Your task to perform on an android device: Go to Wikipedia Image 0: 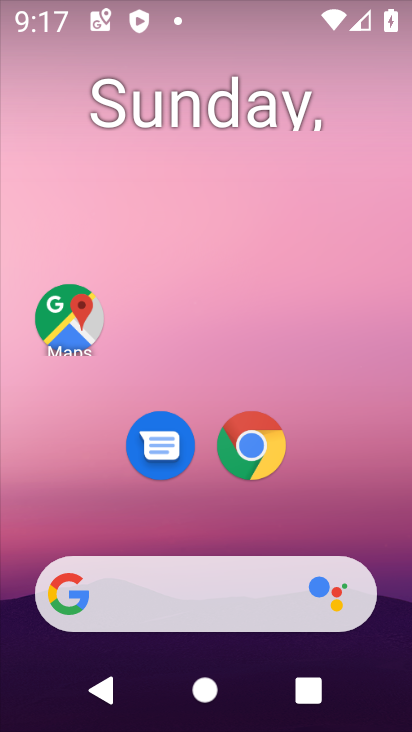
Step 0: click (243, 432)
Your task to perform on an android device: Go to Wikipedia Image 1: 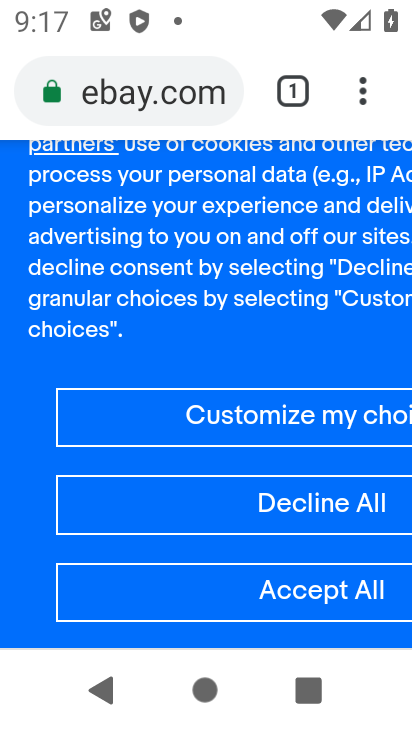
Step 1: click (142, 85)
Your task to perform on an android device: Go to Wikipedia Image 2: 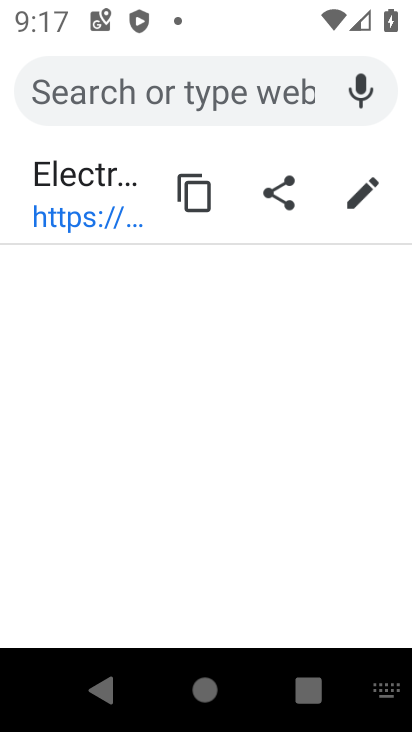
Step 2: type "wikipedia"
Your task to perform on an android device: Go to Wikipedia Image 3: 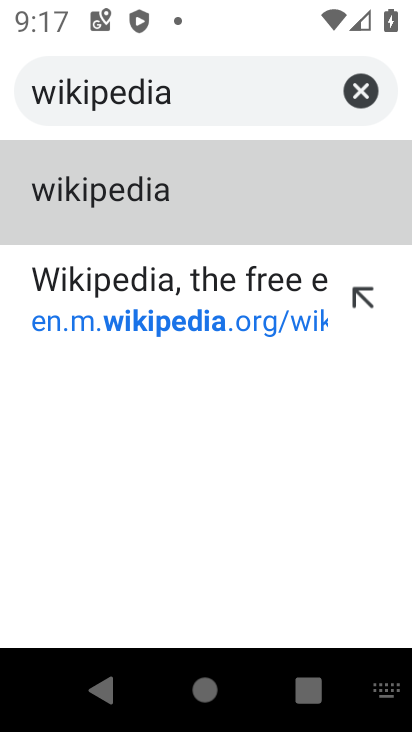
Step 3: click (123, 178)
Your task to perform on an android device: Go to Wikipedia Image 4: 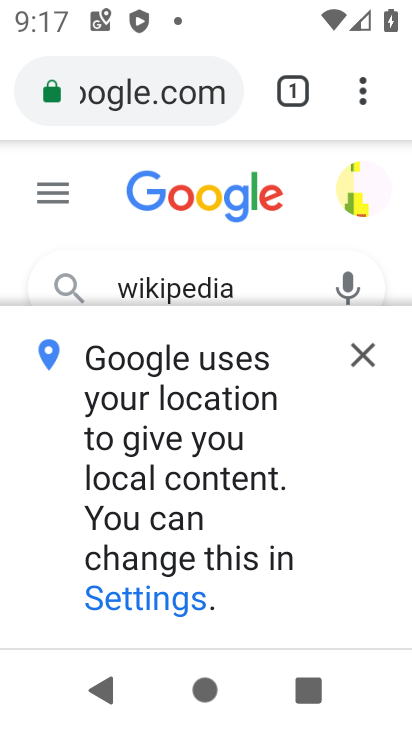
Step 4: click (363, 353)
Your task to perform on an android device: Go to Wikipedia Image 5: 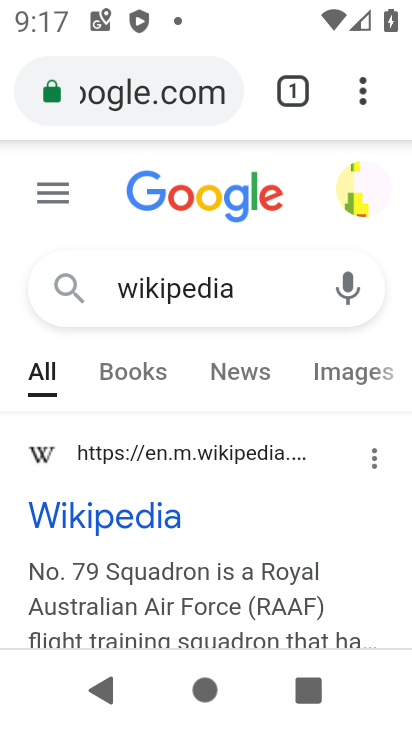
Step 5: click (119, 536)
Your task to perform on an android device: Go to Wikipedia Image 6: 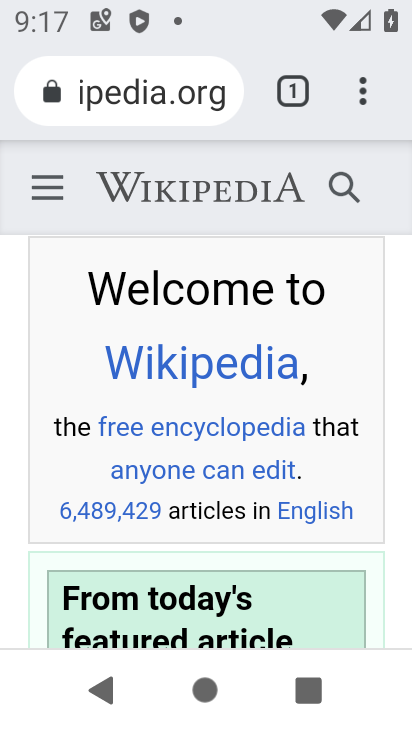
Step 6: task complete